Your task to perform on an android device: open chrome and create a bookmark for the current page Image 0: 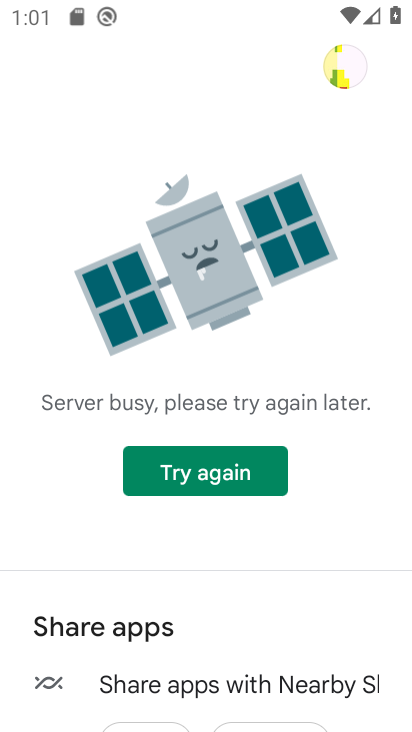
Step 0: press home button
Your task to perform on an android device: open chrome and create a bookmark for the current page Image 1: 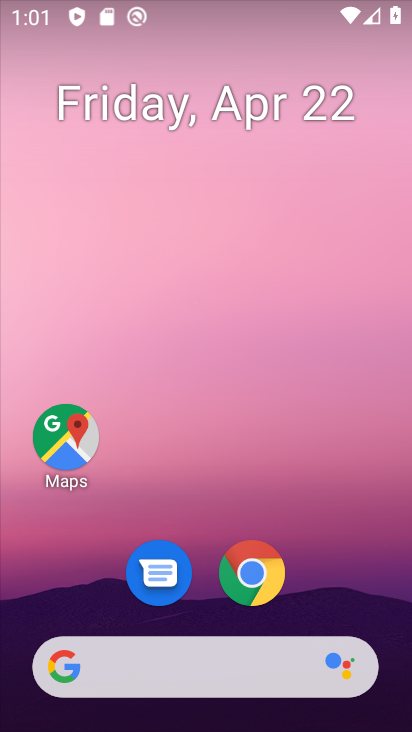
Step 1: click (249, 576)
Your task to perform on an android device: open chrome and create a bookmark for the current page Image 2: 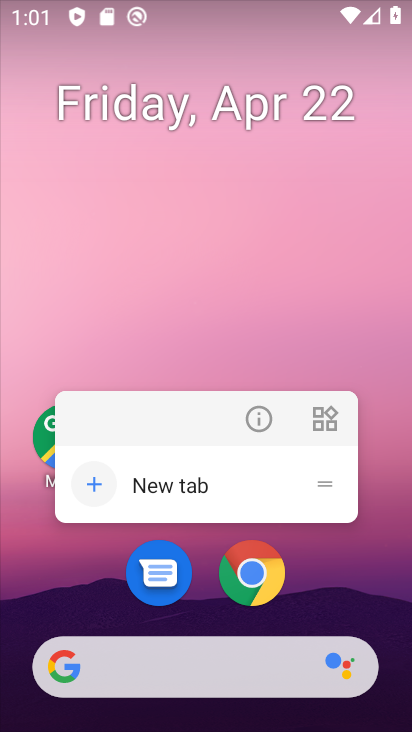
Step 2: click (258, 573)
Your task to perform on an android device: open chrome and create a bookmark for the current page Image 3: 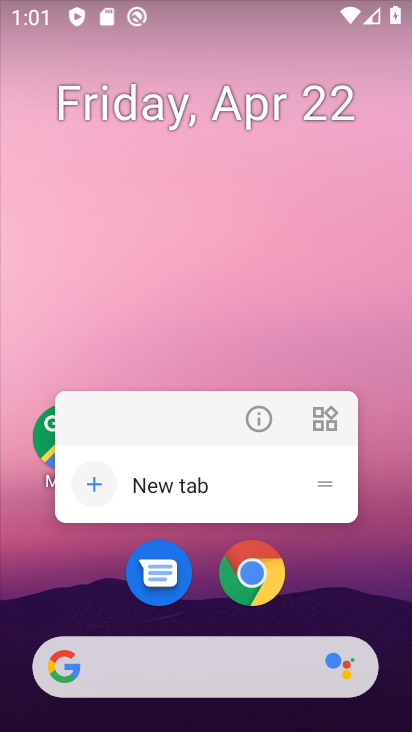
Step 3: click (261, 587)
Your task to perform on an android device: open chrome and create a bookmark for the current page Image 4: 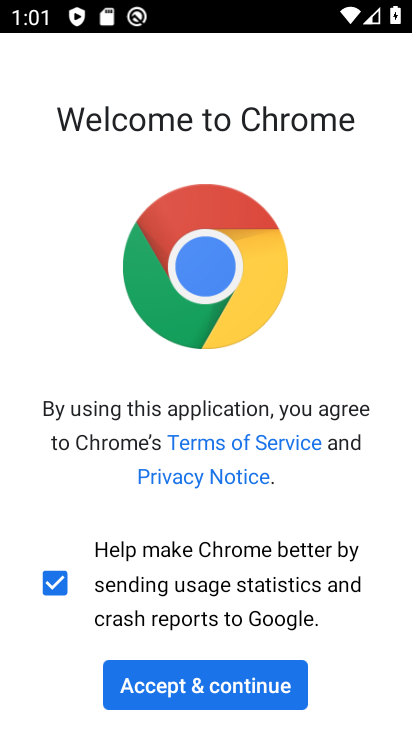
Step 4: click (247, 683)
Your task to perform on an android device: open chrome and create a bookmark for the current page Image 5: 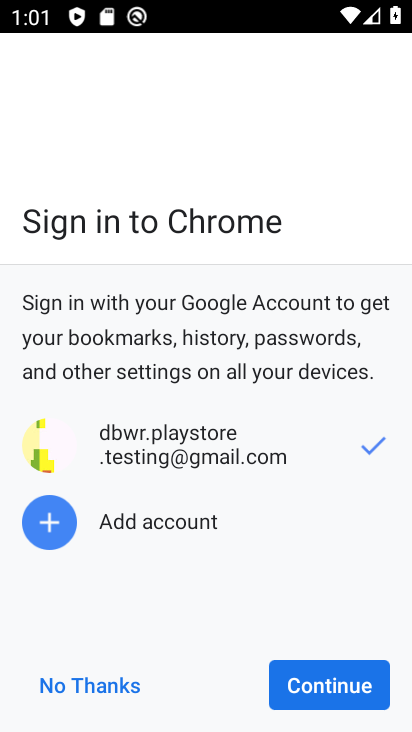
Step 5: click (337, 692)
Your task to perform on an android device: open chrome and create a bookmark for the current page Image 6: 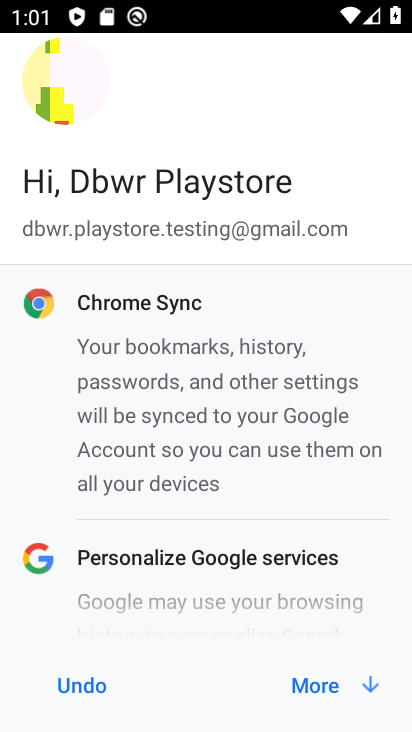
Step 6: click (335, 681)
Your task to perform on an android device: open chrome and create a bookmark for the current page Image 7: 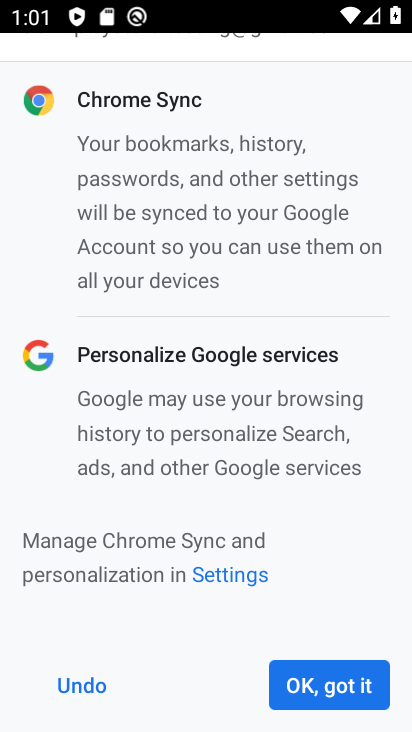
Step 7: click (335, 681)
Your task to perform on an android device: open chrome and create a bookmark for the current page Image 8: 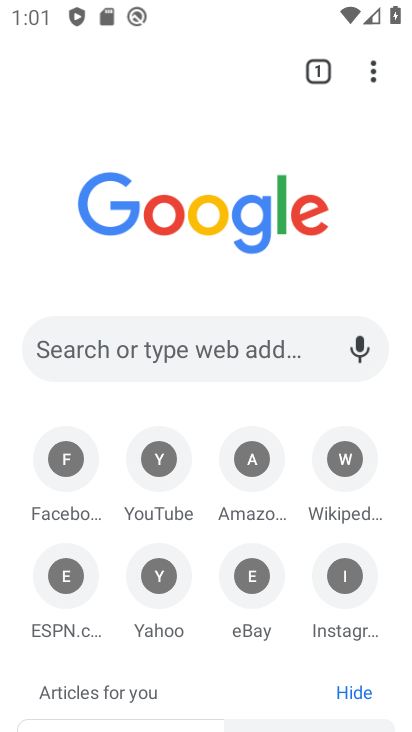
Step 8: drag from (377, 78) to (4, 284)
Your task to perform on an android device: open chrome and create a bookmark for the current page Image 9: 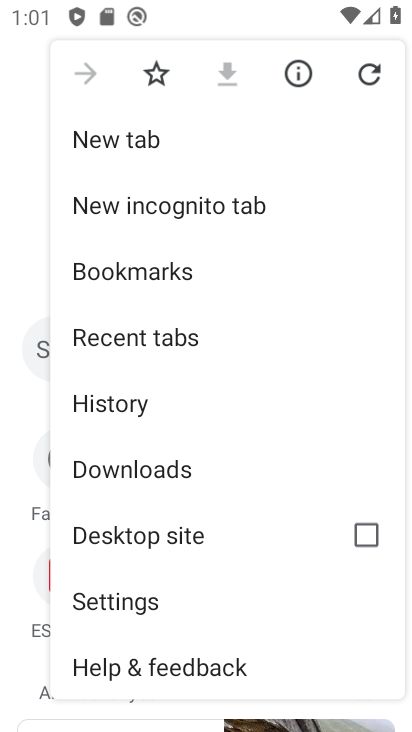
Step 9: click (4, 285)
Your task to perform on an android device: open chrome and create a bookmark for the current page Image 10: 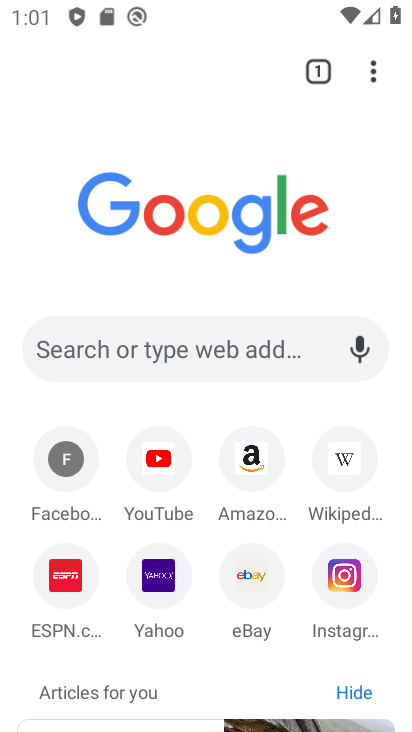
Step 10: click (377, 73)
Your task to perform on an android device: open chrome and create a bookmark for the current page Image 11: 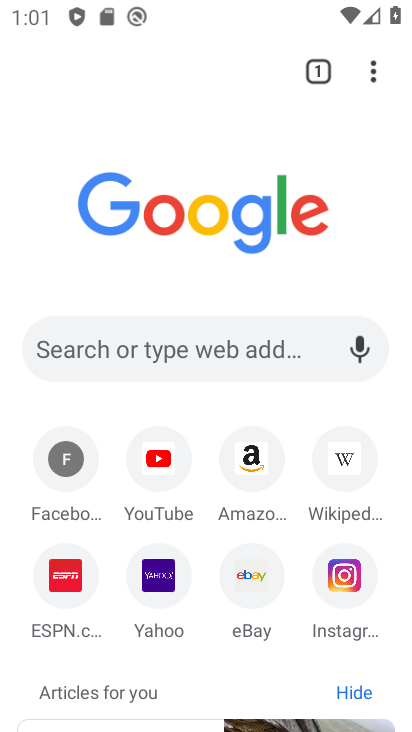
Step 11: task complete